Your task to perform on an android device: choose inbox layout in the gmail app Image 0: 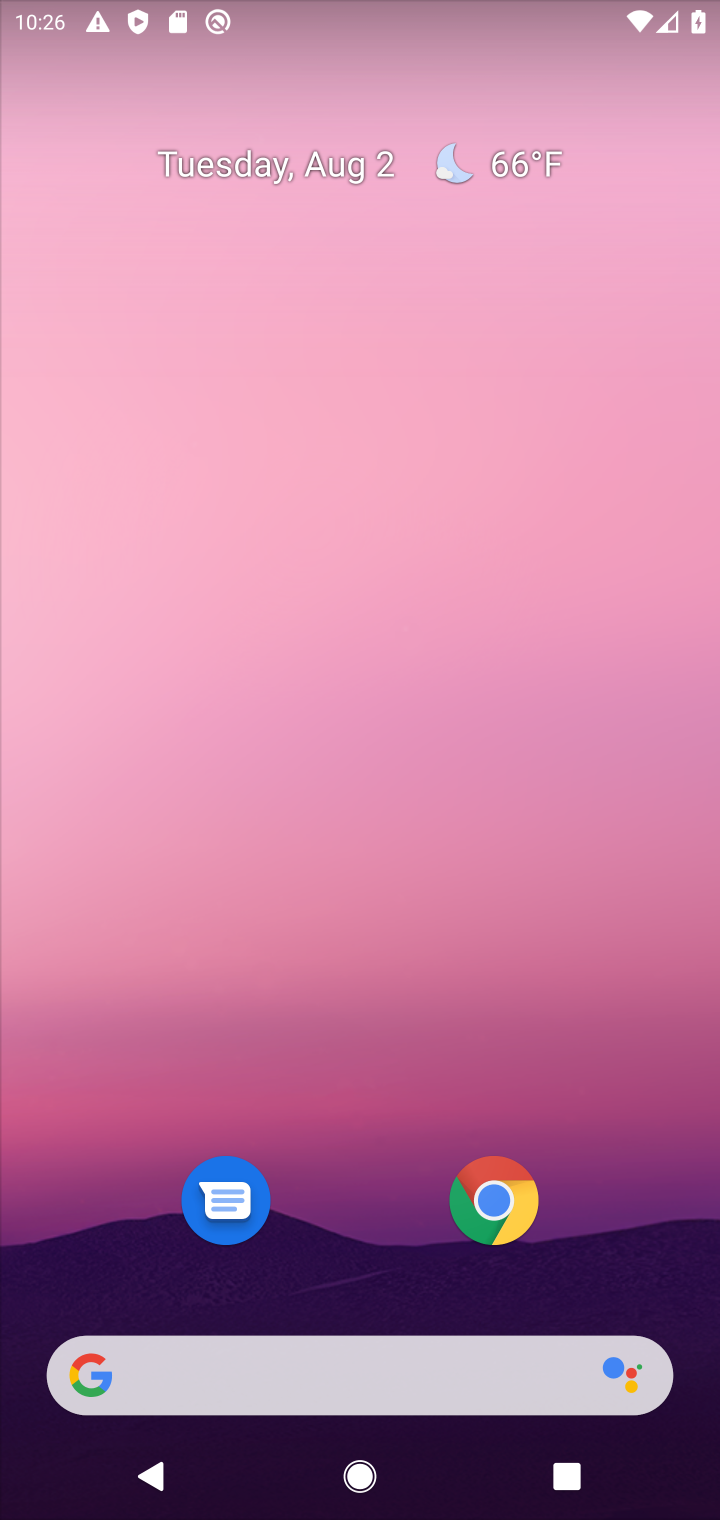
Step 0: drag from (685, 1337) to (604, 428)
Your task to perform on an android device: choose inbox layout in the gmail app Image 1: 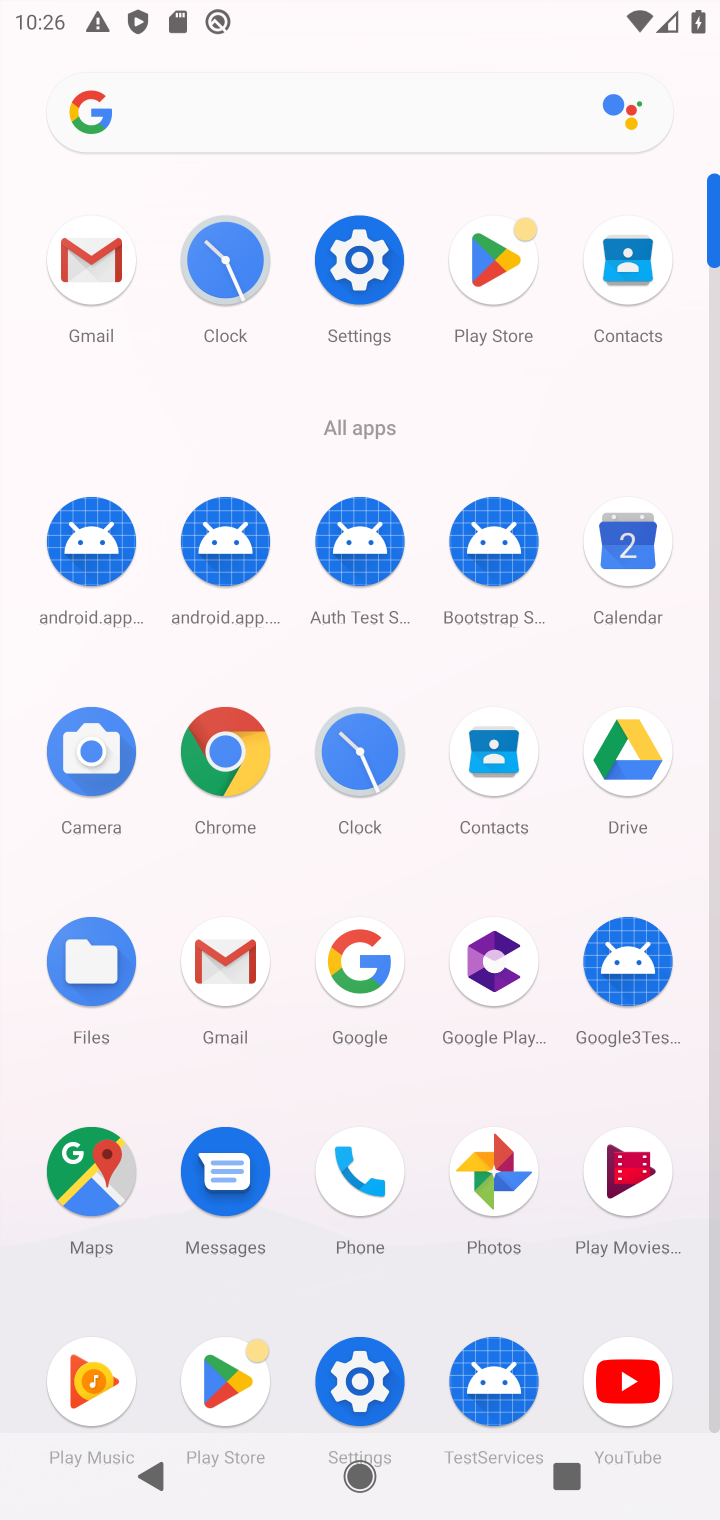
Step 1: click (226, 963)
Your task to perform on an android device: choose inbox layout in the gmail app Image 2: 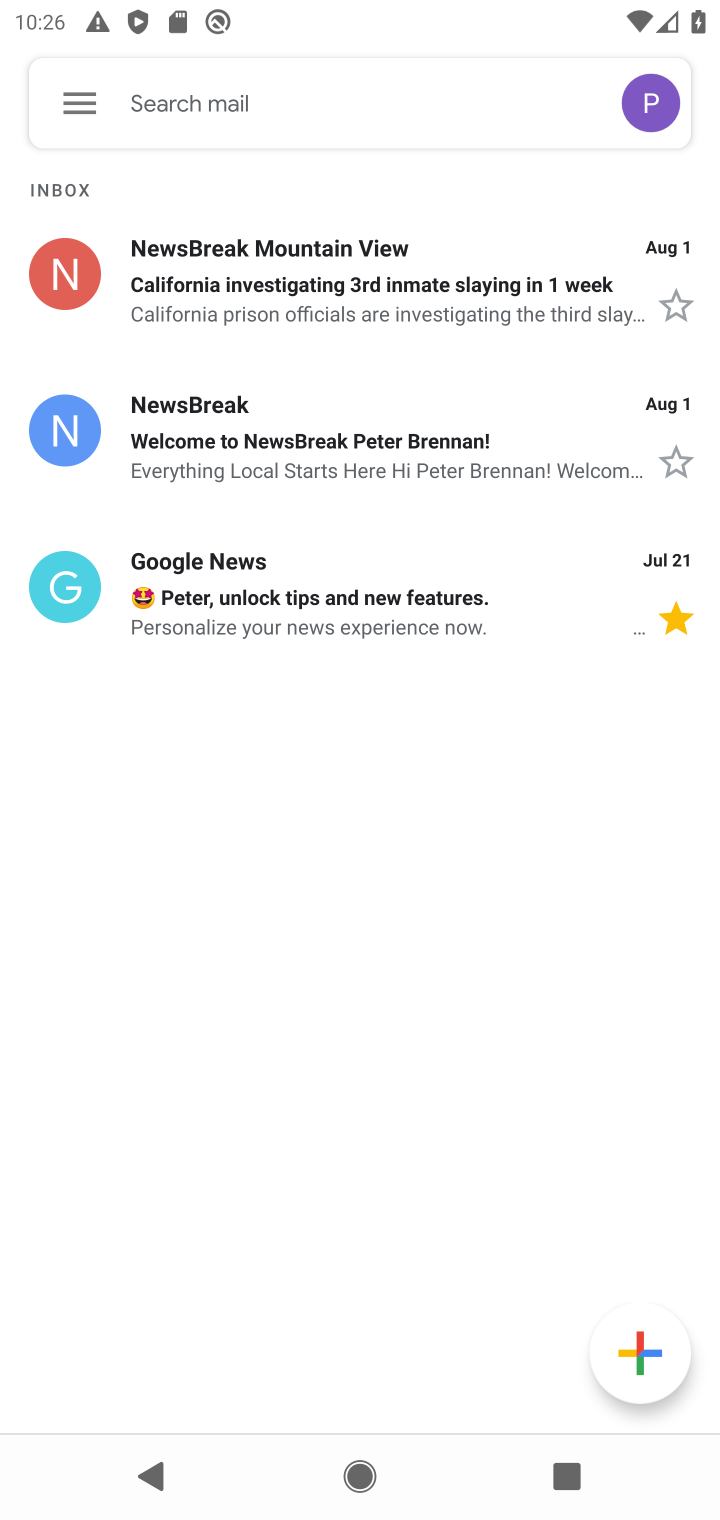
Step 2: click (82, 106)
Your task to perform on an android device: choose inbox layout in the gmail app Image 3: 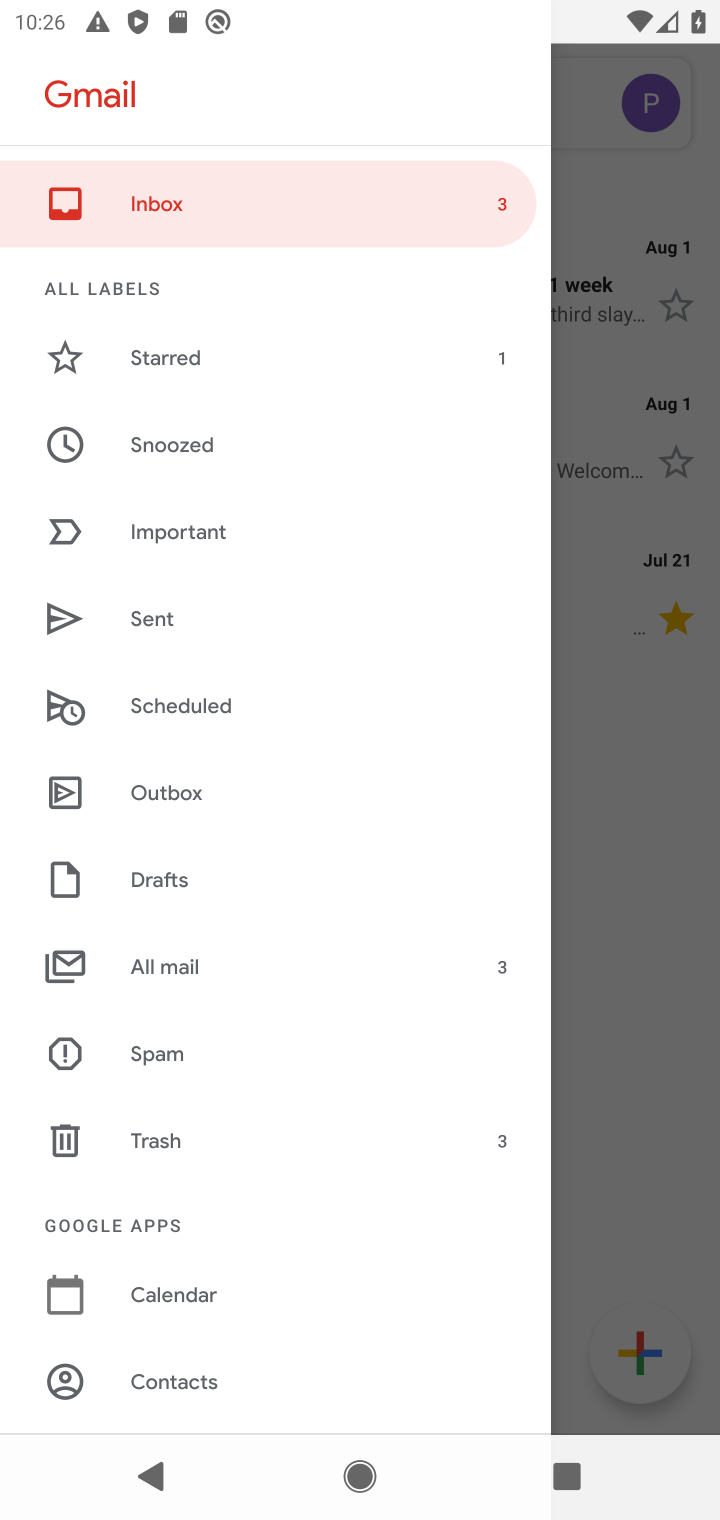
Step 3: drag from (333, 1330) to (374, 514)
Your task to perform on an android device: choose inbox layout in the gmail app Image 4: 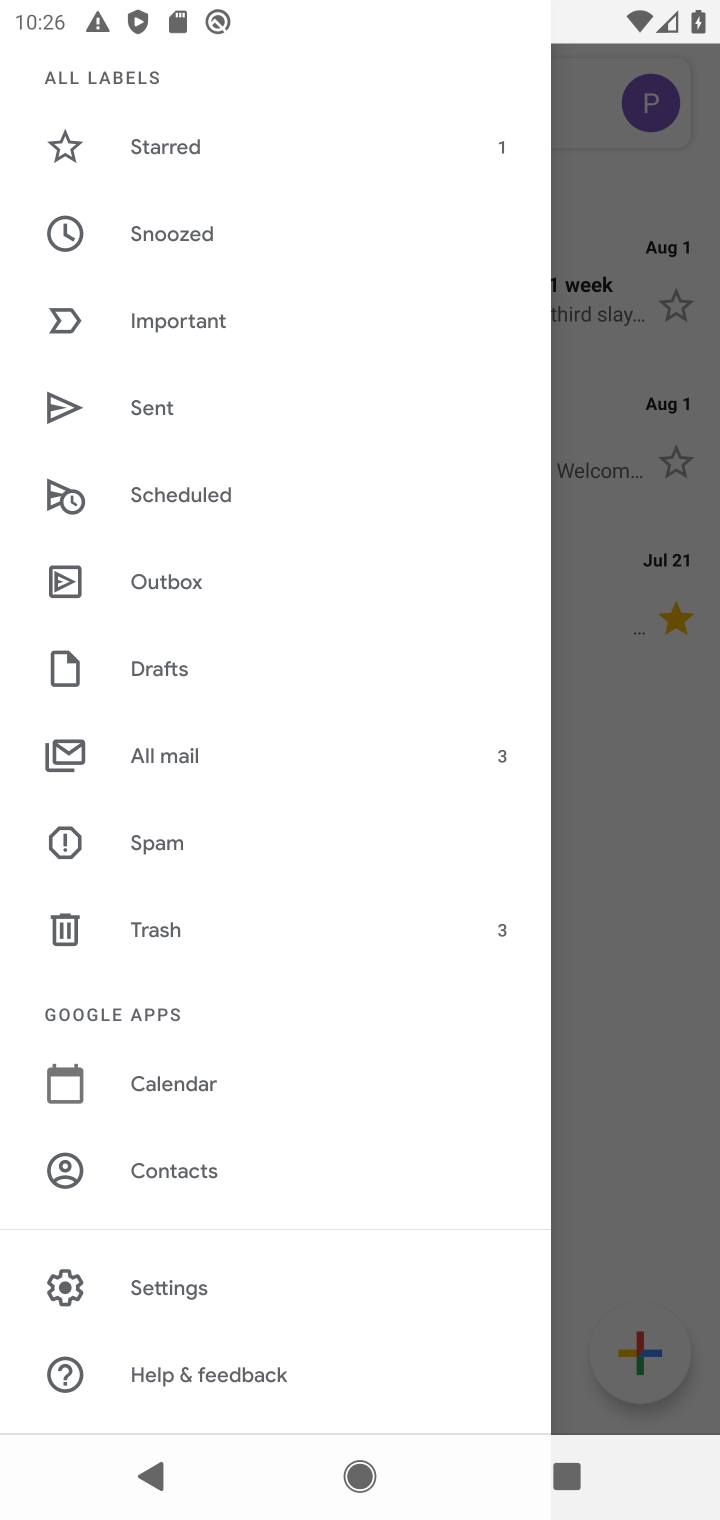
Step 4: click (153, 1272)
Your task to perform on an android device: choose inbox layout in the gmail app Image 5: 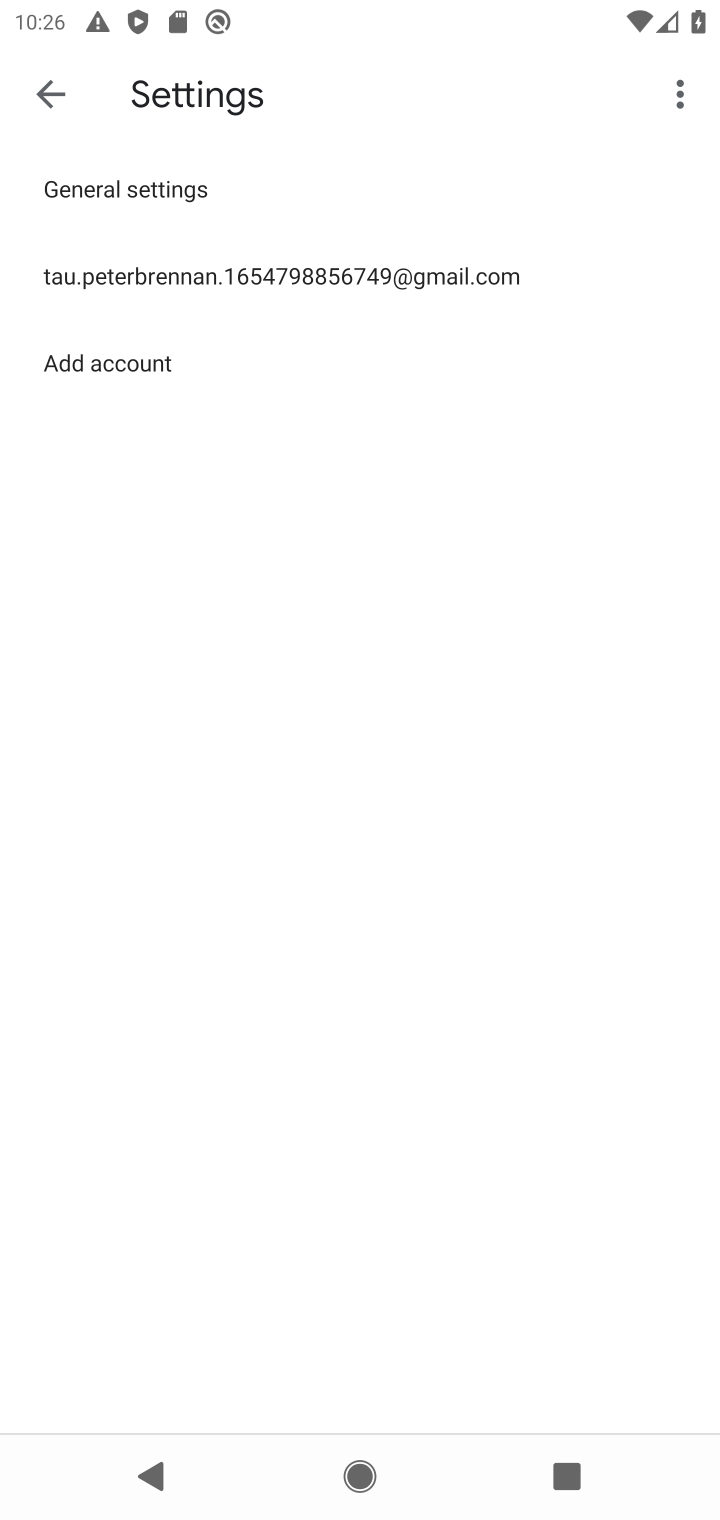
Step 5: click (246, 275)
Your task to perform on an android device: choose inbox layout in the gmail app Image 6: 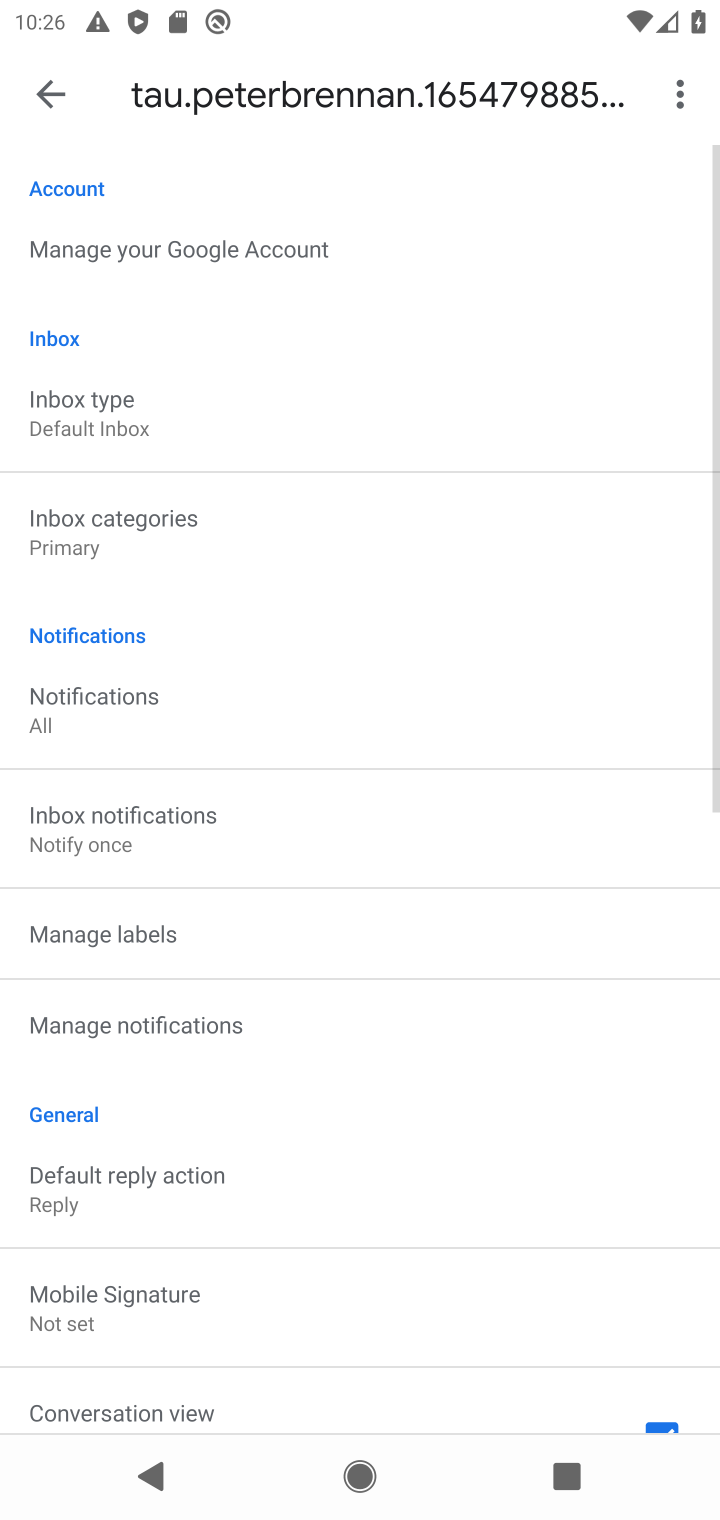
Step 6: click (82, 402)
Your task to perform on an android device: choose inbox layout in the gmail app Image 7: 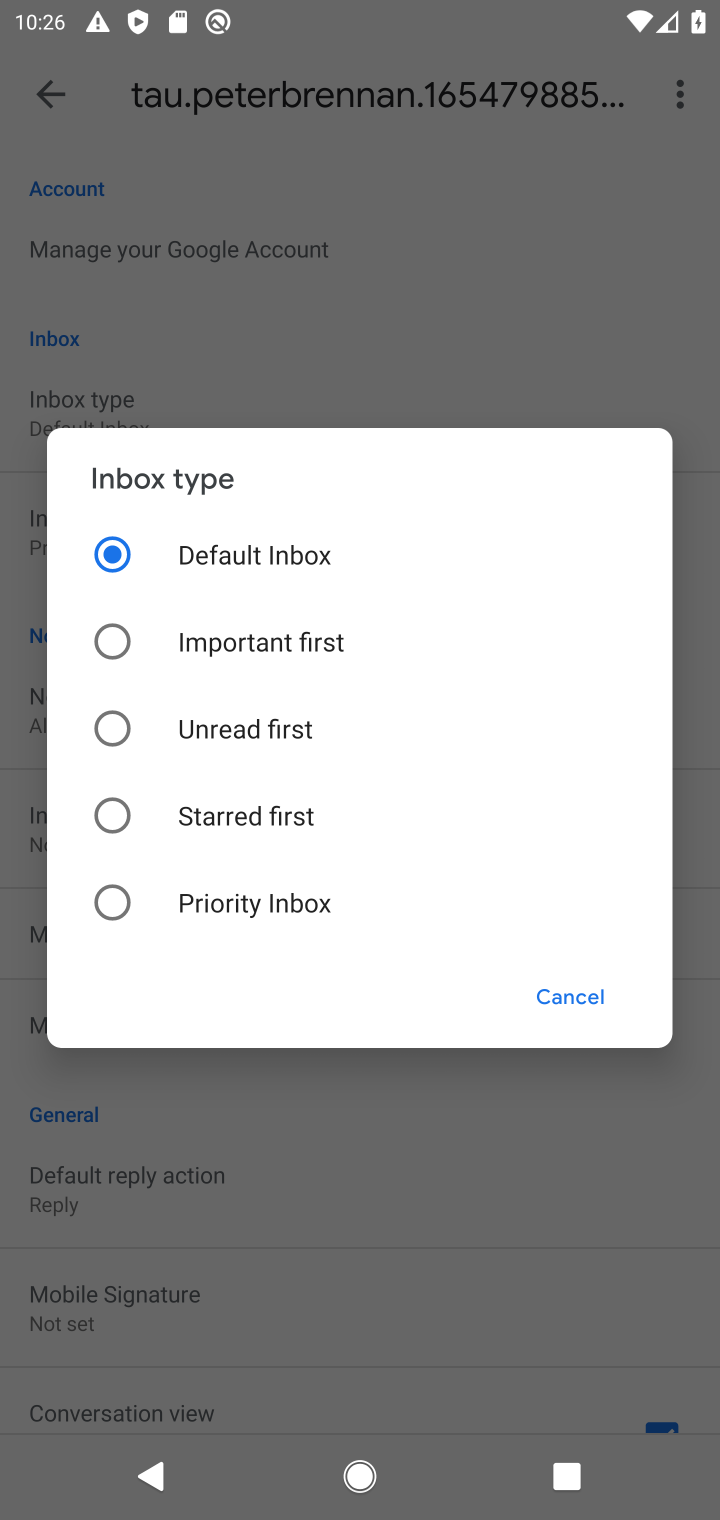
Step 7: click (107, 637)
Your task to perform on an android device: choose inbox layout in the gmail app Image 8: 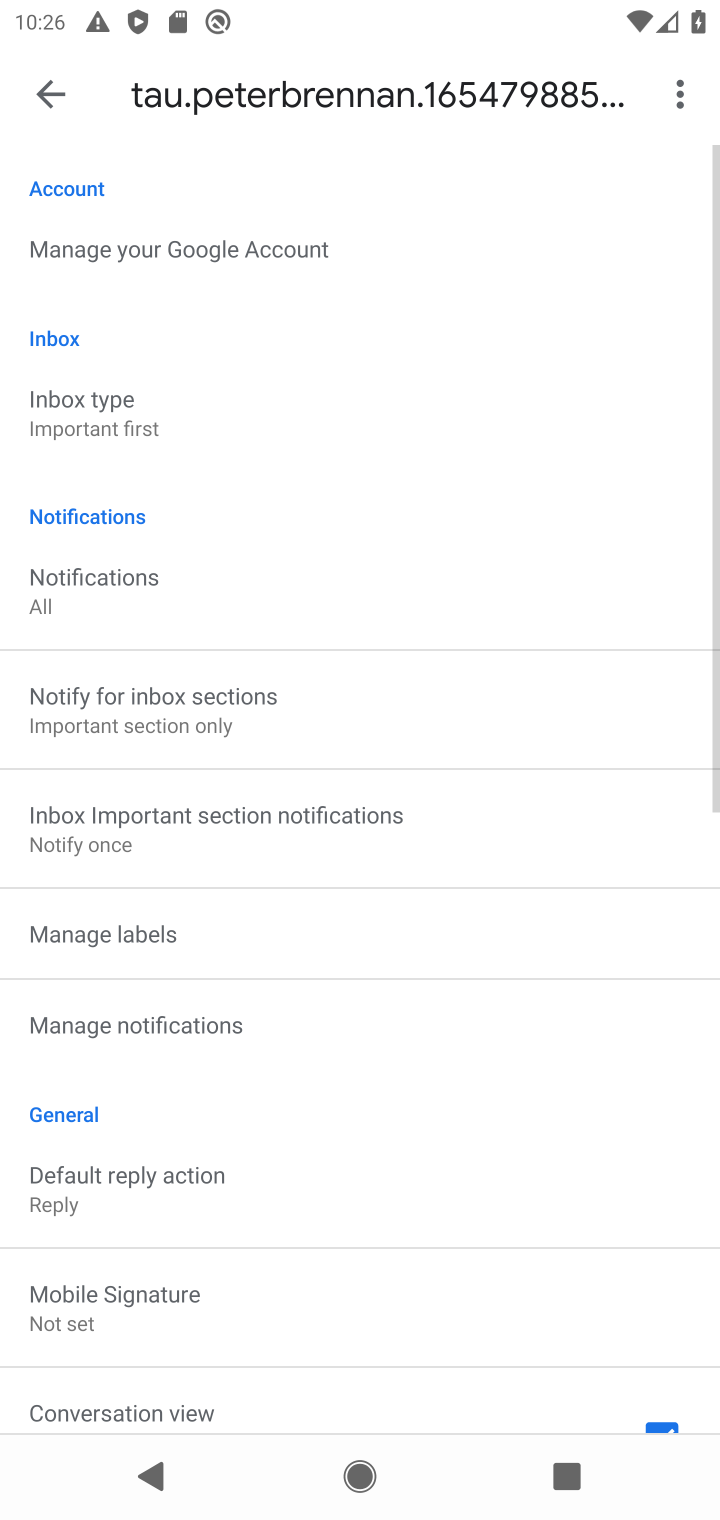
Step 8: task complete